Your task to perform on an android device: What's on my calendar today? Image 0: 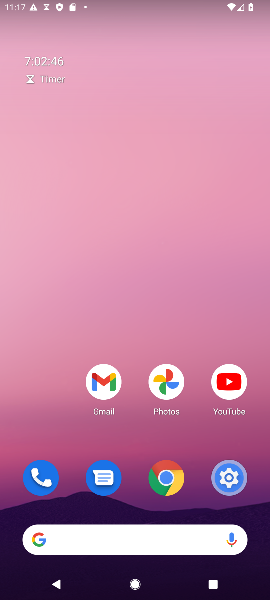
Step 0: drag from (198, 357) to (241, 0)
Your task to perform on an android device: What's on my calendar today? Image 1: 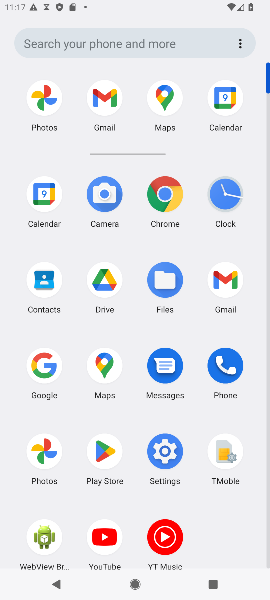
Step 1: click (223, 96)
Your task to perform on an android device: What's on my calendar today? Image 2: 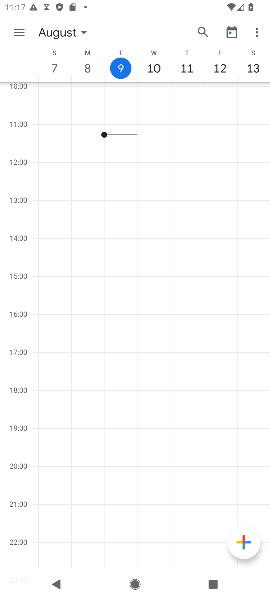
Step 2: click (18, 28)
Your task to perform on an android device: What's on my calendar today? Image 3: 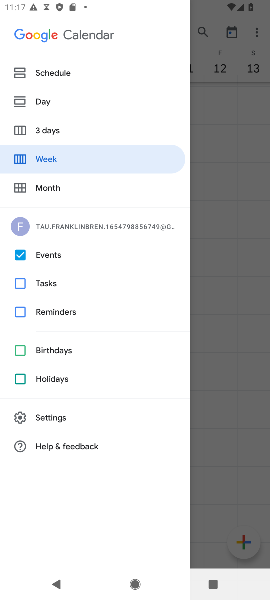
Step 3: click (57, 102)
Your task to perform on an android device: What's on my calendar today? Image 4: 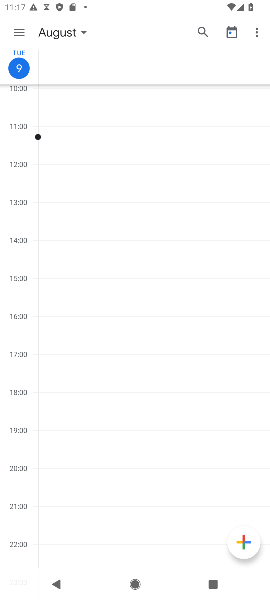
Step 4: task complete